Your task to perform on an android device: change keyboard looks Image 0: 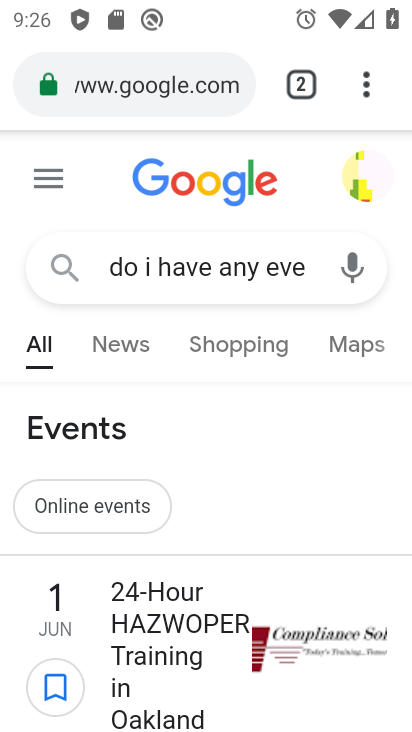
Step 0: press home button
Your task to perform on an android device: change keyboard looks Image 1: 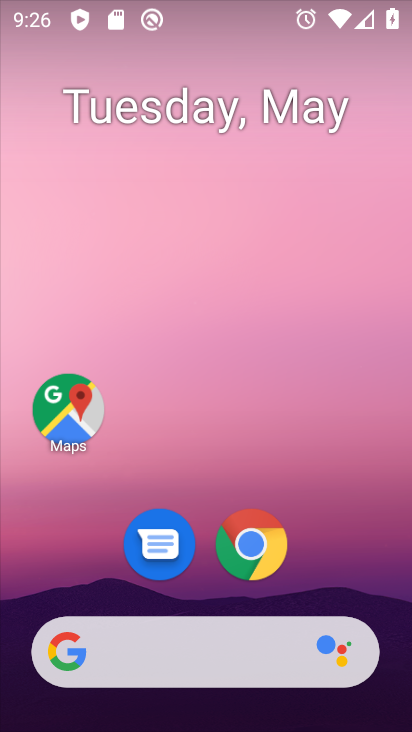
Step 1: drag from (350, 552) to (294, 176)
Your task to perform on an android device: change keyboard looks Image 2: 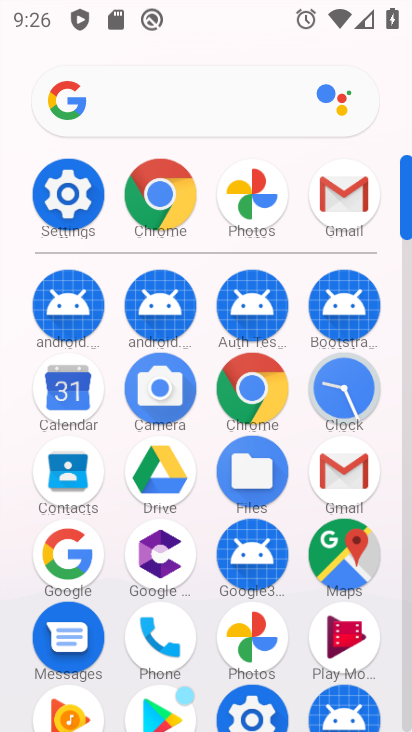
Step 2: click (86, 189)
Your task to perform on an android device: change keyboard looks Image 3: 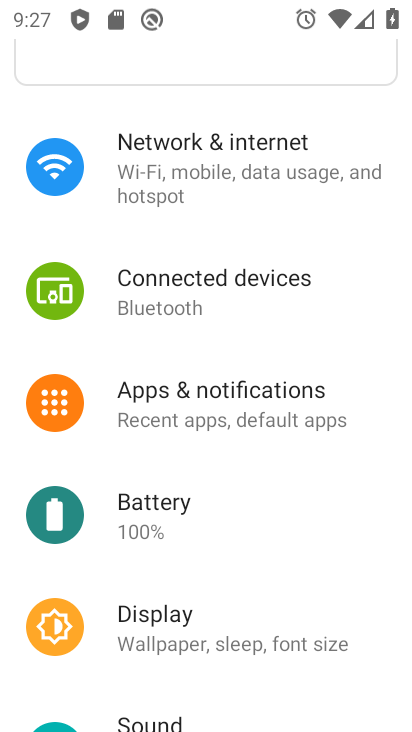
Step 3: drag from (296, 619) to (301, 267)
Your task to perform on an android device: change keyboard looks Image 4: 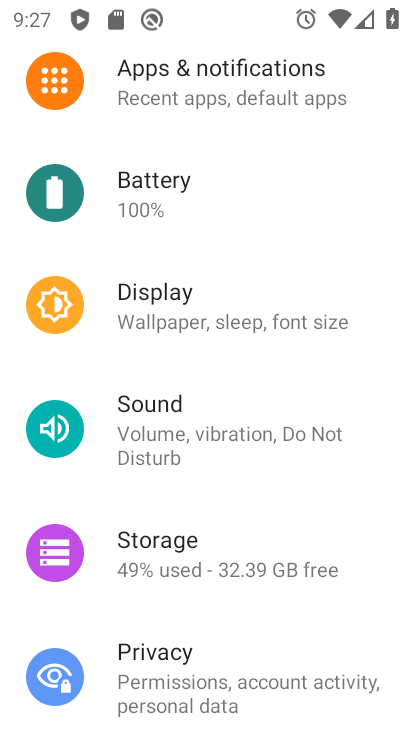
Step 4: drag from (276, 638) to (271, 237)
Your task to perform on an android device: change keyboard looks Image 5: 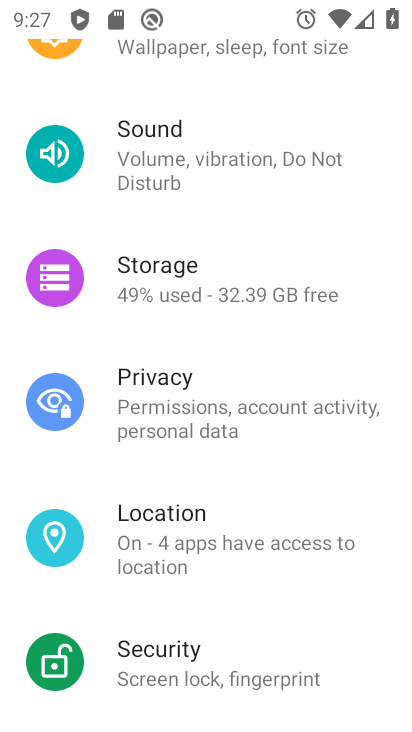
Step 5: drag from (261, 649) to (280, 217)
Your task to perform on an android device: change keyboard looks Image 6: 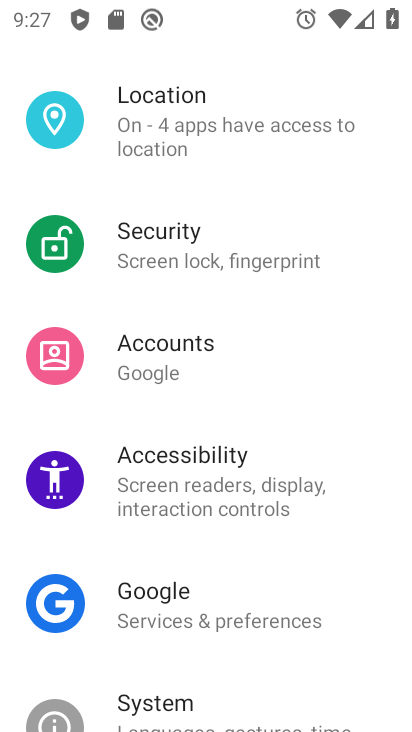
Step 6: drag from (268, 589) to (306, 175)
Your task to perform on an android device: change keyboard looks Image 7: 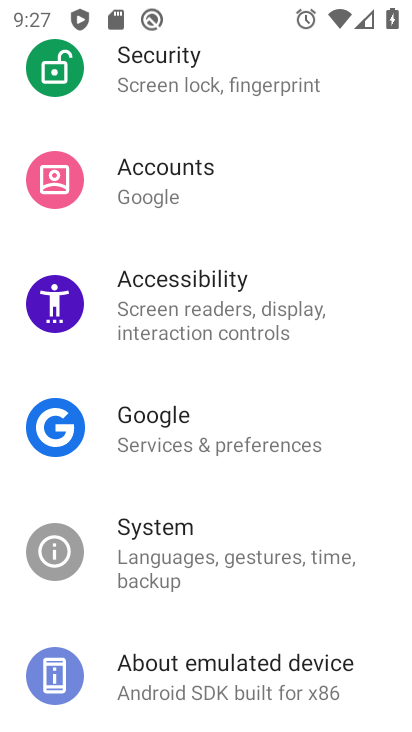
Step 7: drag from (248, 619) to (239, 218)
Your task to perform on an android device: change keyboard looks Image 8: 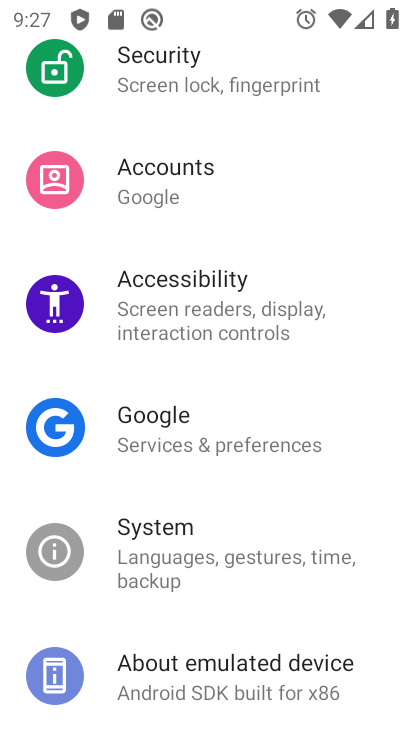
Step 8: click (252, 568)
Your task to perform on an android device: change keyboard looks Image 9: 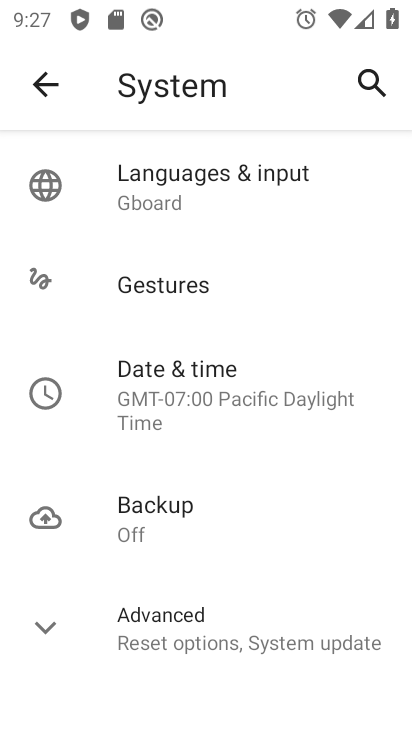
Step 9: drag from (244, 535) to (265, 282)
Your task to perform on an android device: change keyboard looks Image 10: 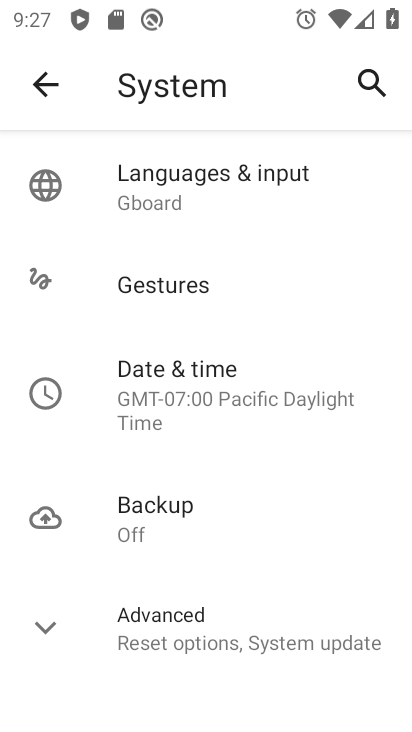
Step 10: click (227, 192)
Your task to perform on an android device: change keyboard looks Image 11: 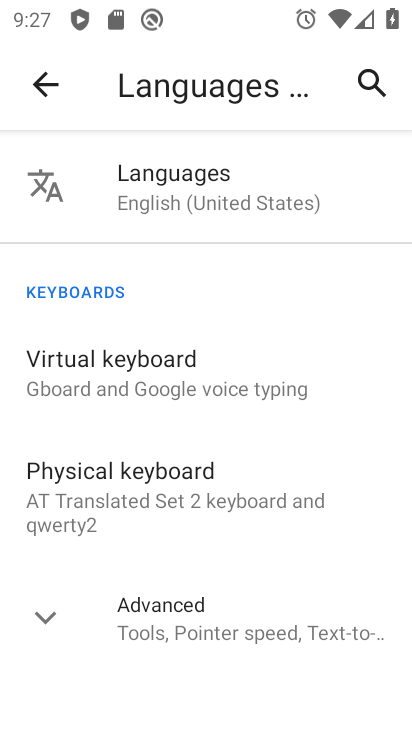
Step 11: click (169, 391)
Your task to perform on an android device: change keyboard looks Image 12: 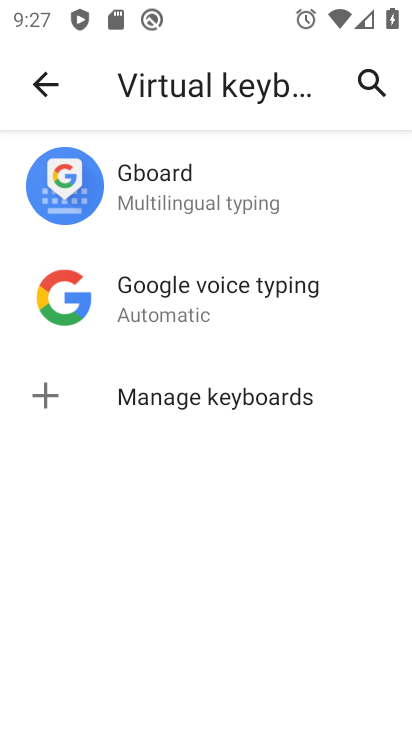
Step 12: click (202, 191)
Your task to perform on an android device: change keyboard looks Image 13: 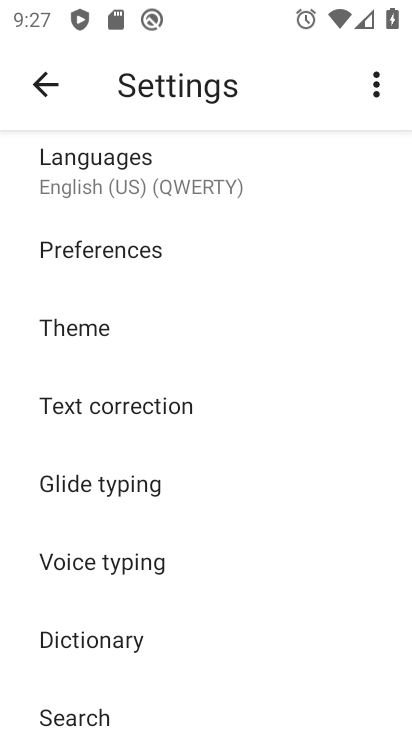
Step 13: click (165, 328)
Your task to perform on an android device: change keyboard looks Image 14: 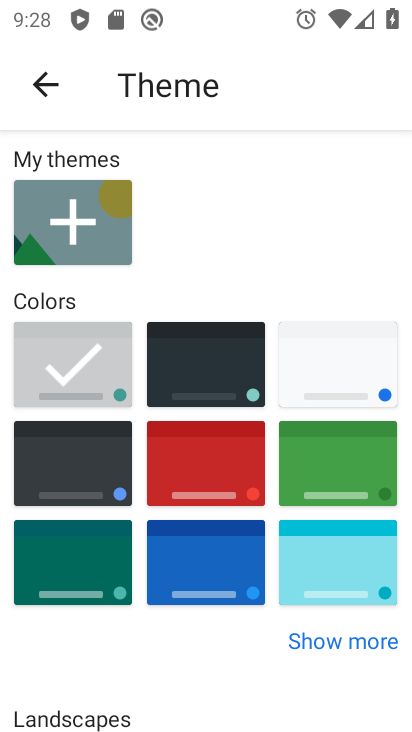
Step 14: click (200, 394)
Your task to perform on an android device: change keyboard looks Image 15: 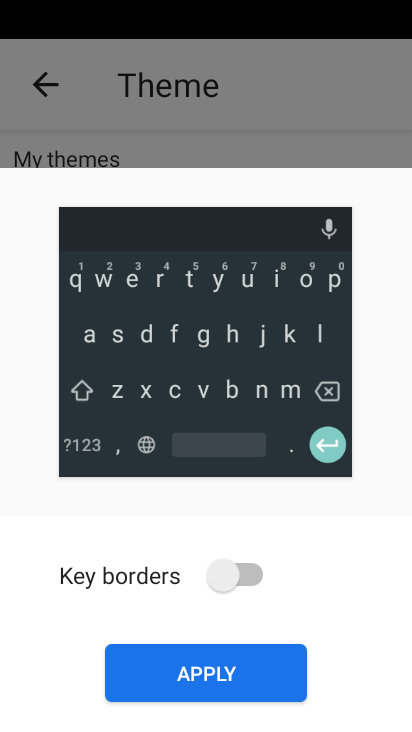
Step 15: click (266, 651)
Your task to perform on an android device: change keyboard looks Image 16: 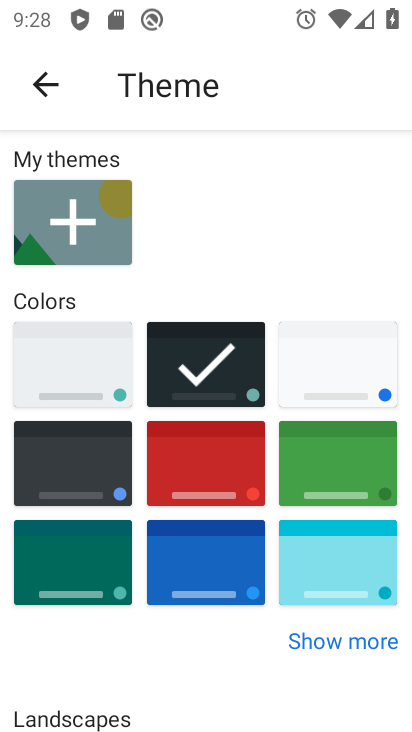
Step 16: task complete